Your task to perform on an android device: Open the calendar app, open the side menu, and click the "Day" option Image 0: 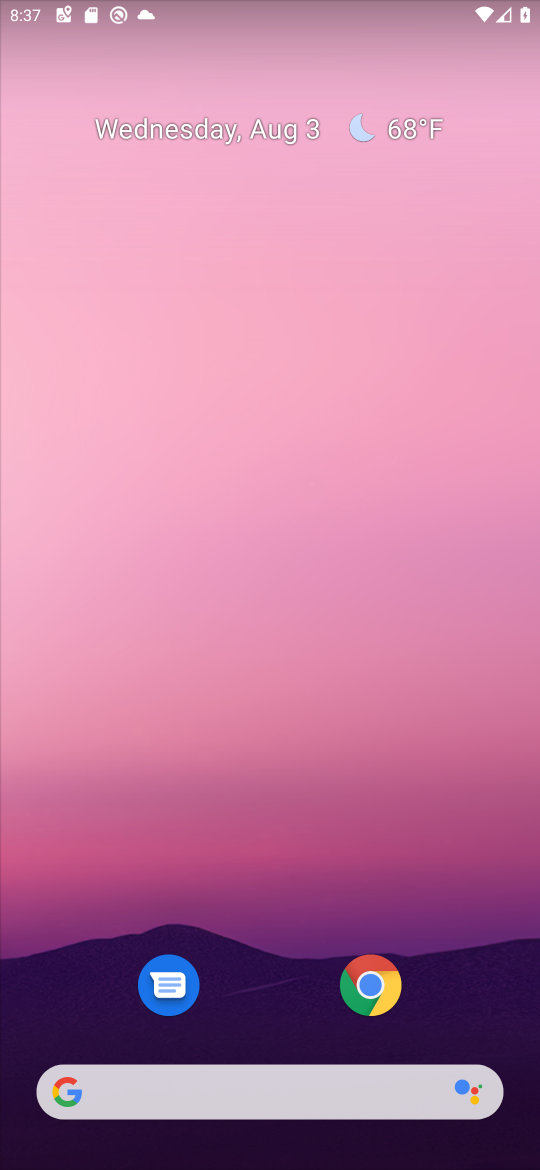
Step 0: drag from (266, 921) to (240, 182)
Your task to perform on an android device: Open the calendar app, open the side menu, and click the "Day" option Image 1: 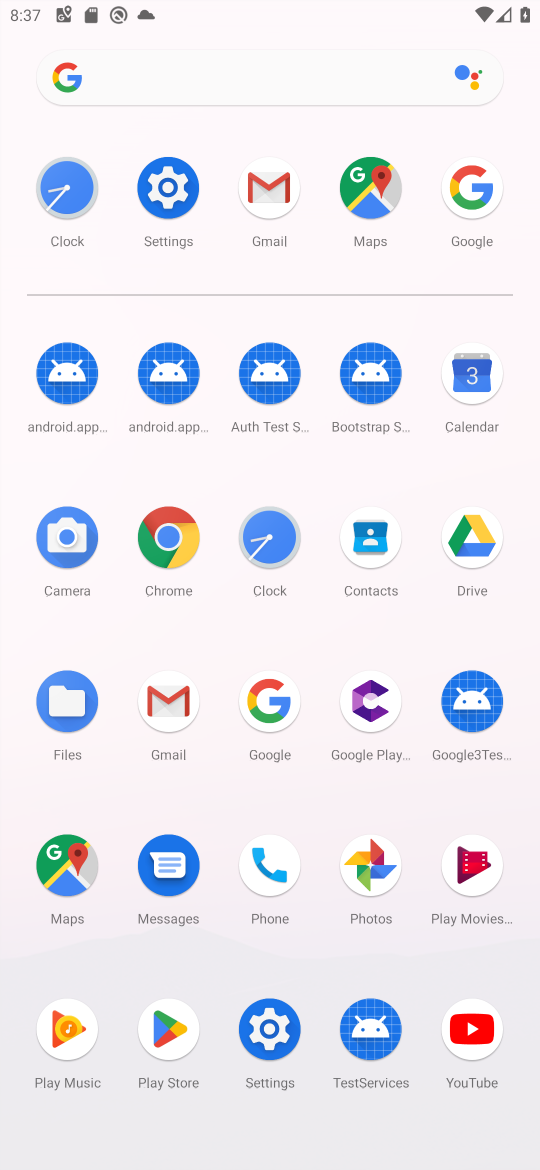
Step 1: click (458, 420)
Your task to perform on an android device: Open the calendar app, open the side menu, and click the "Day" option Image 2: 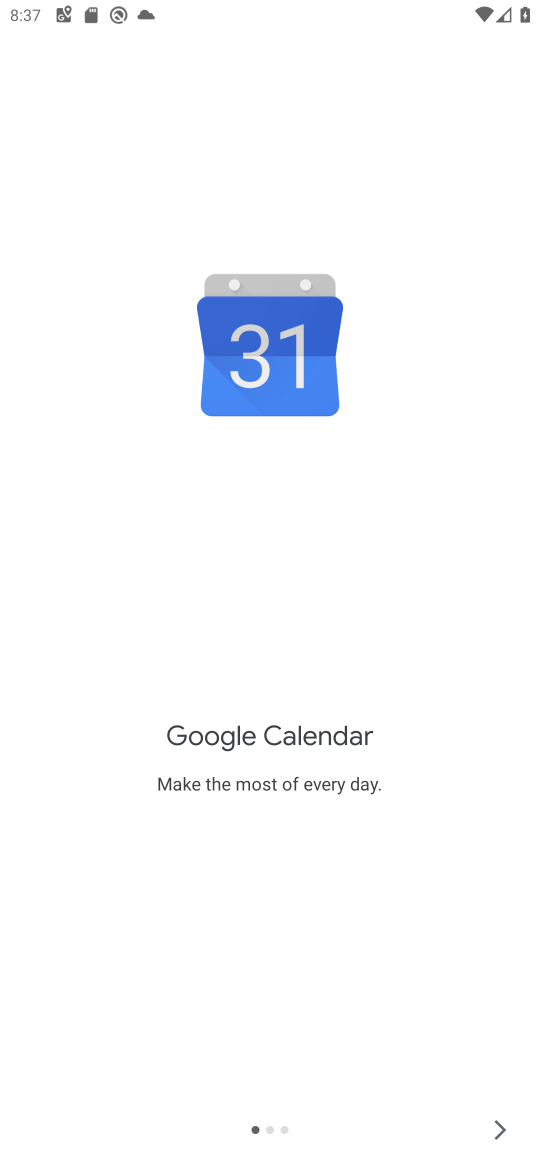
Step 2: click (494, 1122)
Your task to perform on an android device: Open the calendar app, open the side menu, and click the "Day" option Image 3: 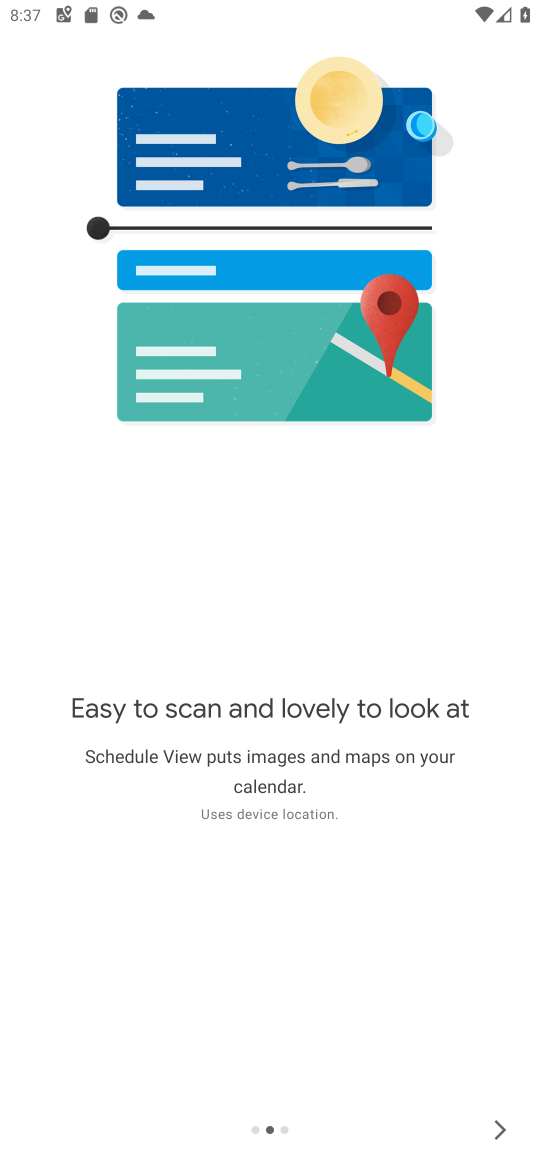
Step 3: click (494, 1122)
Your task to perform on an android device: Open the calendar app, open the side menu, and click the "Day" option Image 4: 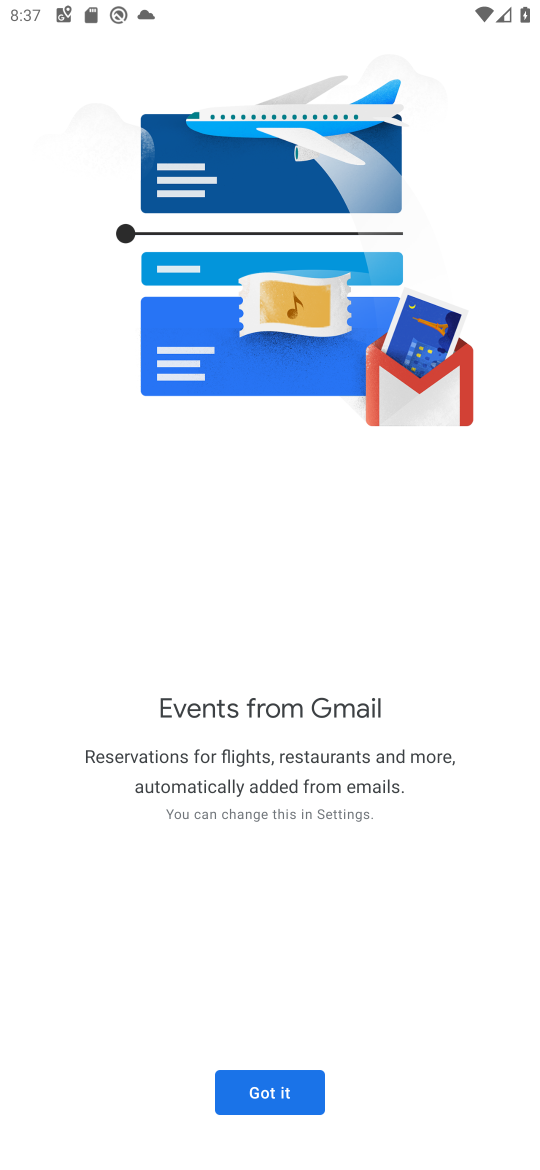
Step 4: click (255, 1091)
Your task to perform on an android device: Open the calendar app, open the side menu, and click the "Day" option Image 5: 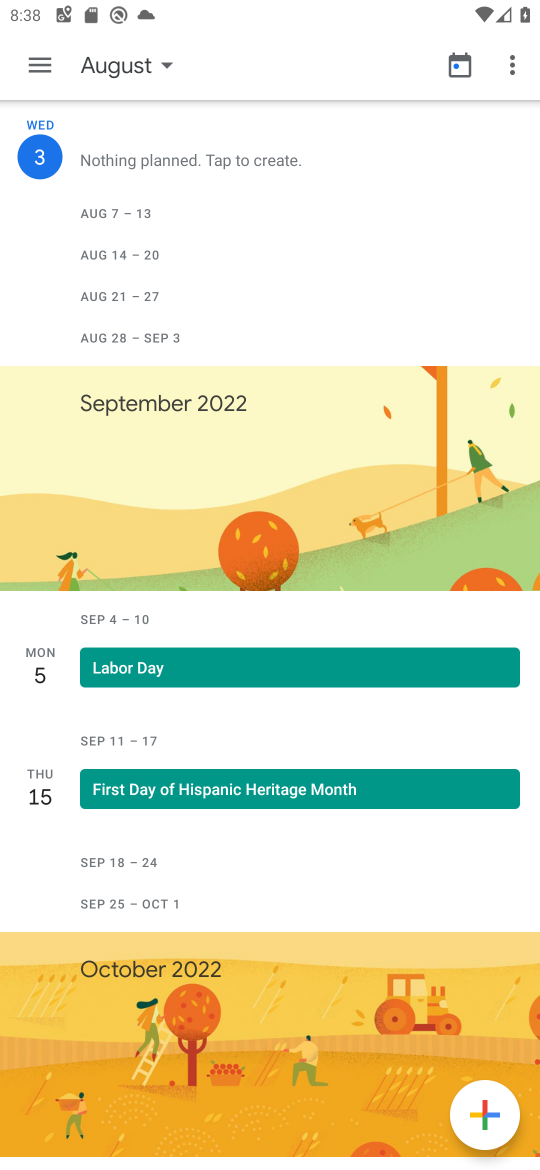
Step 5: click (28, 75)
Your task to perform on an android device: Open the calendar app, open the side menu, and click the "Day" option Image 6: 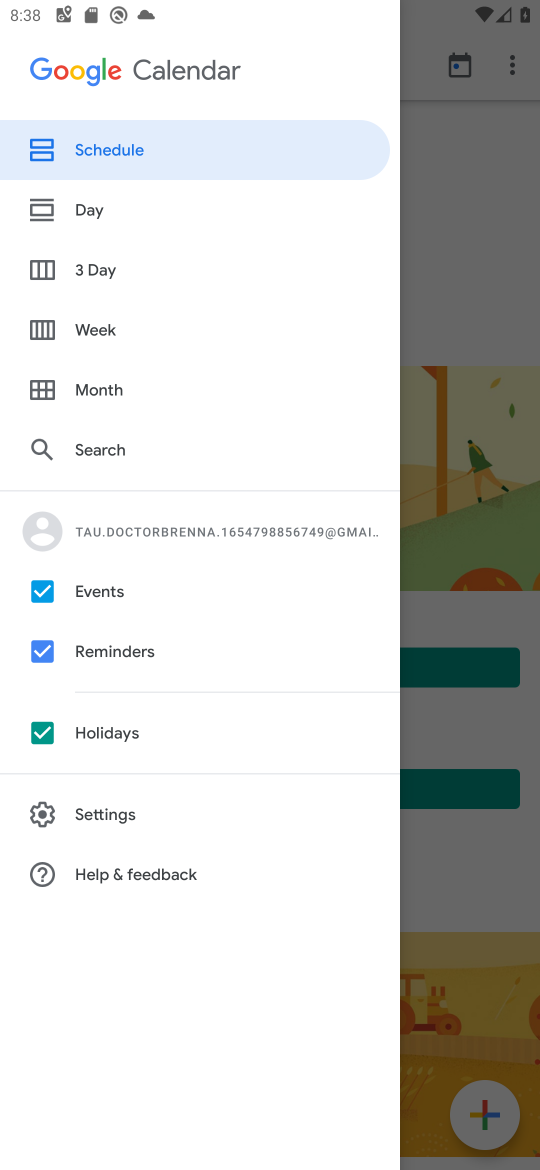
Step 6: click (85, 192)
Your task to perform on an android device: Open the calendar app, open the side menu, and click the "Day" option Image 7: 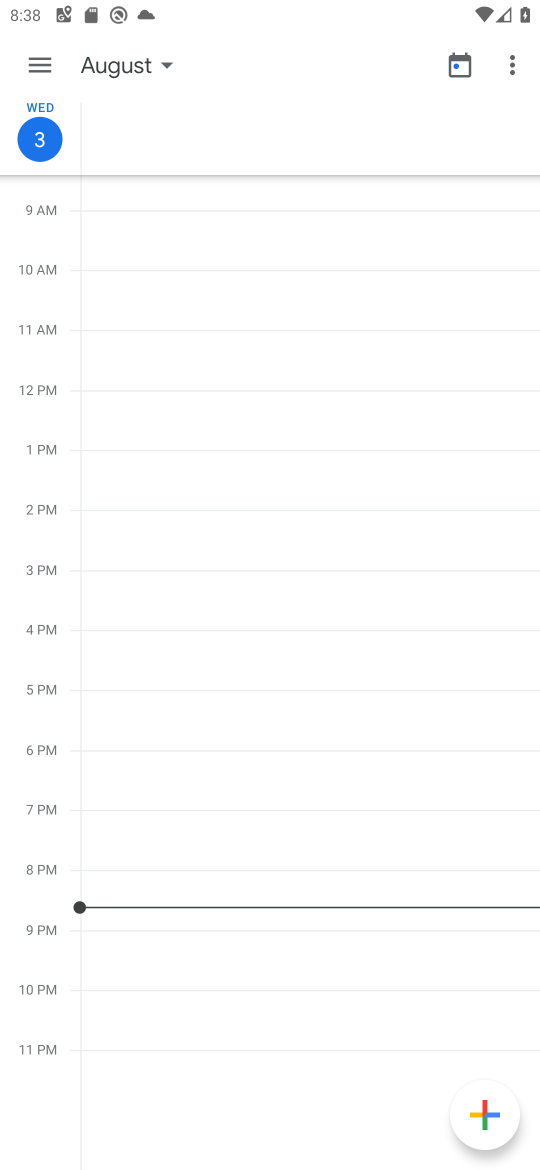
Step 7: task complete